Your task to perform on an android device: Do I have any events tomorrow? Image 0: 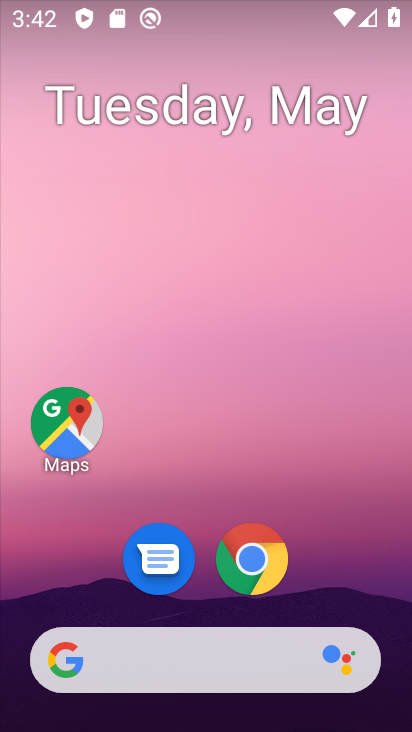
Step 0: drag from (345, 592) to (295, 71)
Your task to perform on an android device: Do I have any events tomorrow? Image 1: 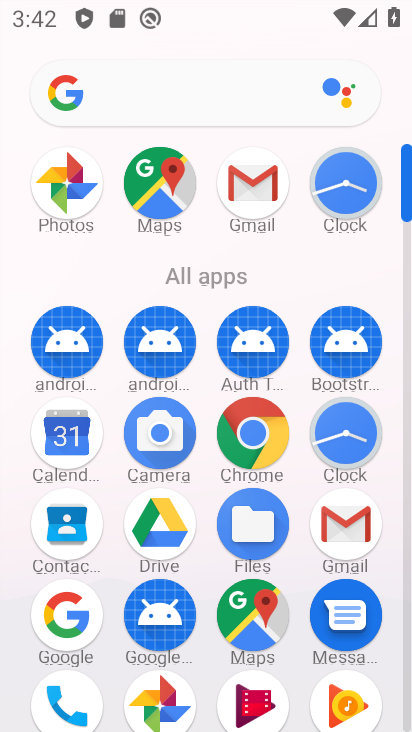
Step 1: click (58, 426)
Your task to perform on an android device: Do I have any events tomorrow? Image 2: 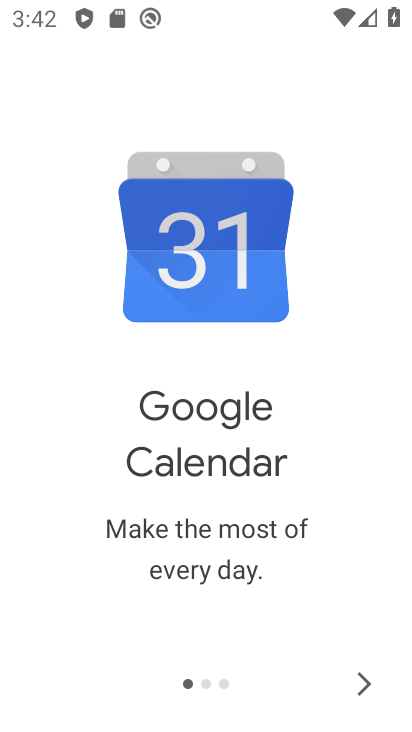
Step 2: click (370, 680)
Your task to perform on an android device: Do I have any events tomorrow? Image 3: 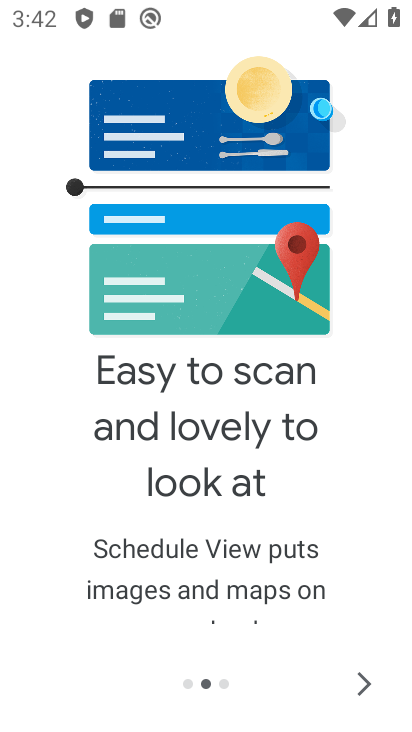
Step 3: click (370, 680)
Your task to perform on an android device: Do I have any events tomorrow? Image 4: 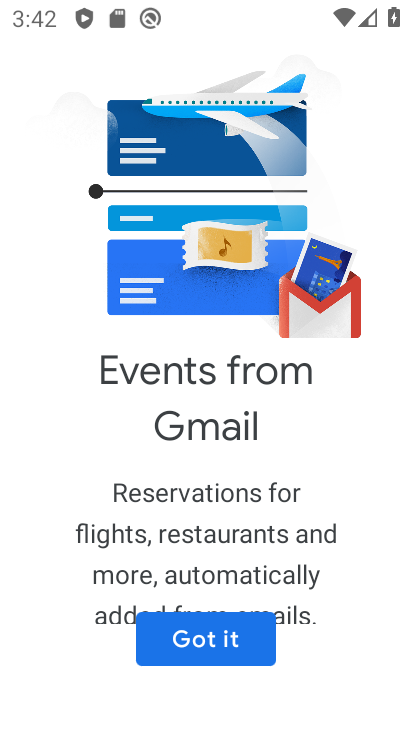
Step 4: click (248, 650)
Your task to perform on an android device: Do I have any events tomorrow? Image 5: 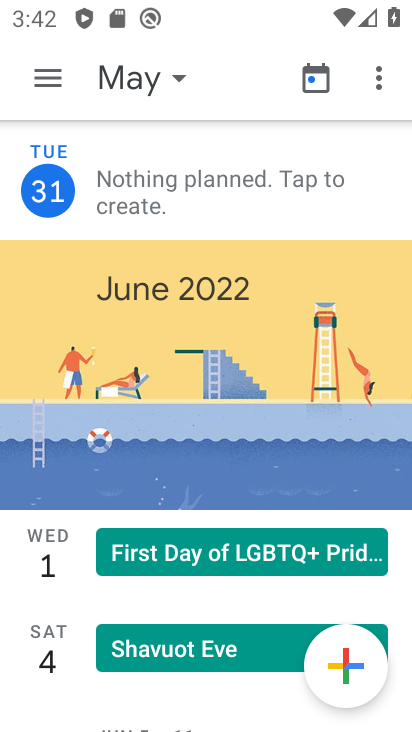
Step 5: click (56, 73)
Your task to perform on an android device: Do I have any events tomorrow? Image 6: 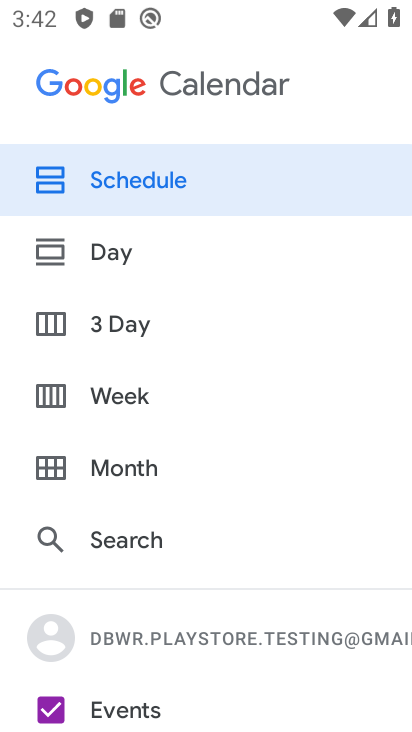
Step 6: drag from (162, 609) to (157, 260)
Your task to perform on an android device: Do I have any events tomorrow? Image 7: 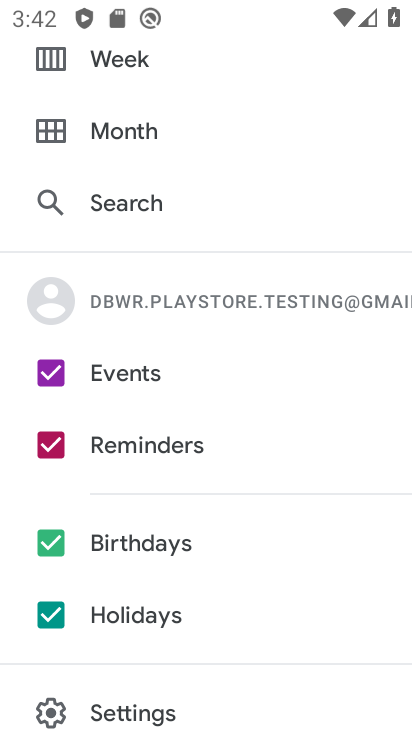
Step 7: click (53, 613)
Your task to perform on an android device: Do I have any events tomorrow? Image 8: 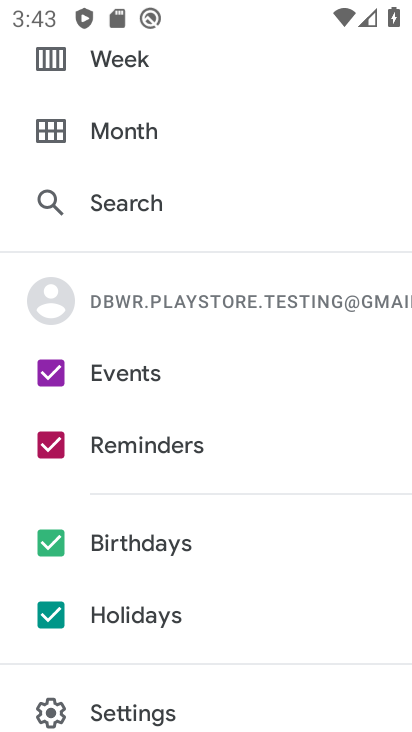
Step 8: click (44, 535)
Your task to perform on an android device: Do I have any events tomorrow? Image 9: 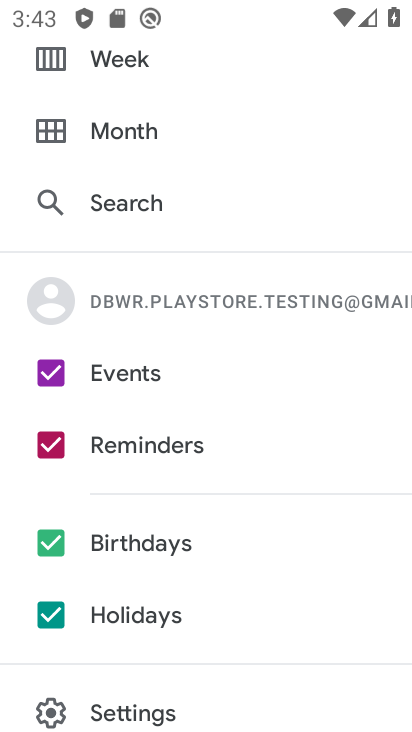
Step 9: click (50, 620)
Your task to perform on an android device: Do I have any events tomorrow? Image 10: 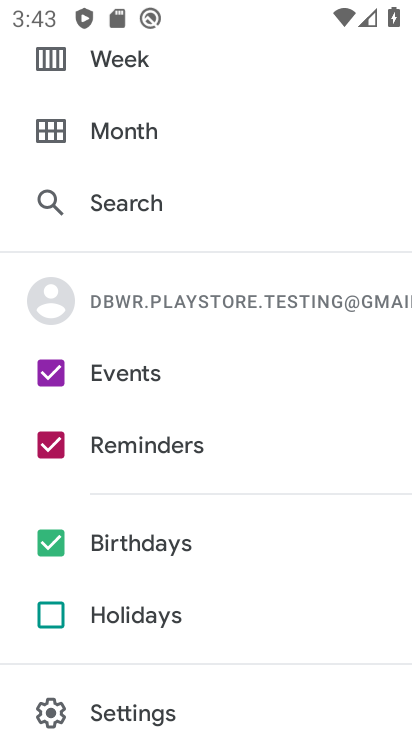
Step 10: click (53, 542)
Your task to perform on an android device: Do I have any events tomorrow? Image 11: 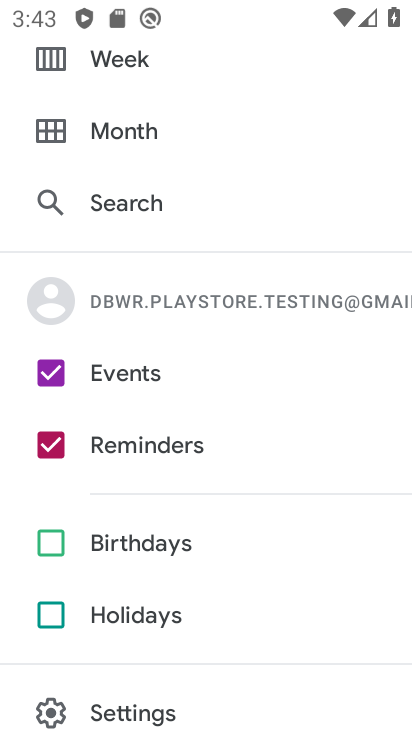
Step 11: click (51, 447)
Your task to perform on an android device: Do I have any events tomorrow? Image 12: 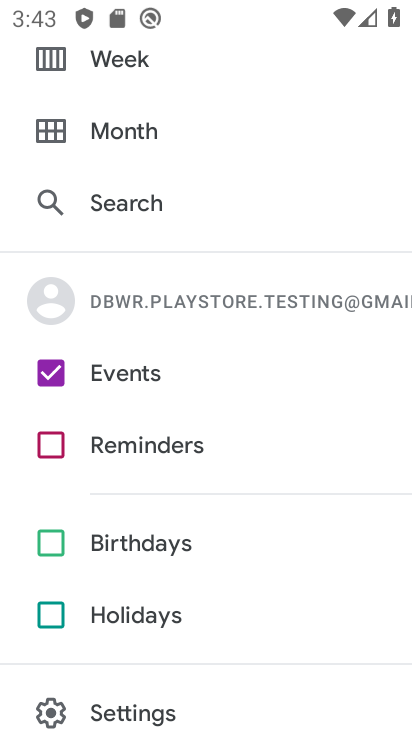
Step 12: drag from (132, 100) to (149, 497)
Your task to perform on an android device: Do I have any events tomorrow? Image 13: 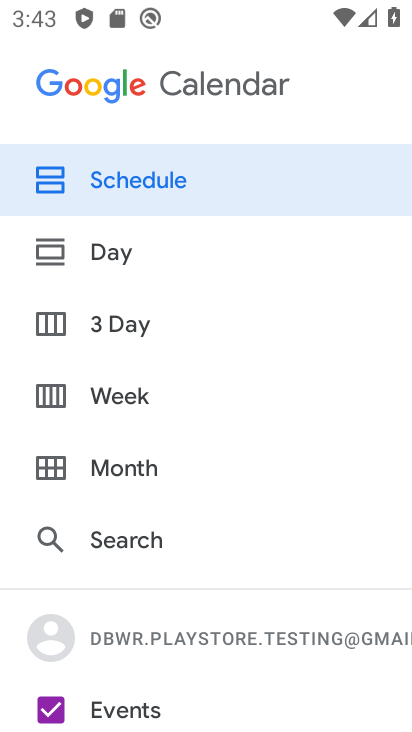
Step 13: click (133, 248)
Your task to perform on an android device: Do I have any events tomorrow? Image 14: 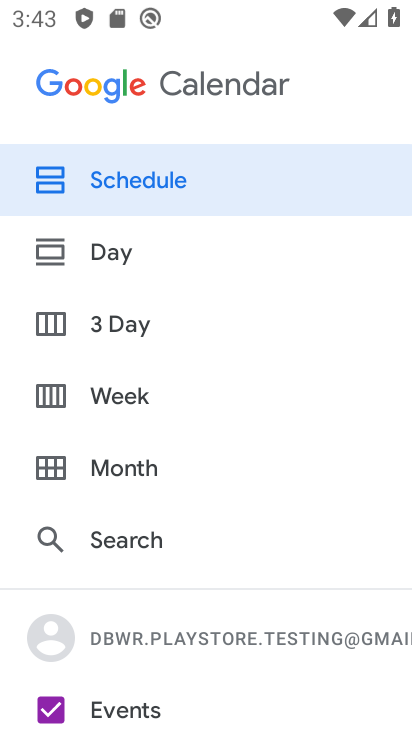
Step 14: click (180, 265)
Your task to perform on an android device: Do I have any events tomorrow? Image 15: 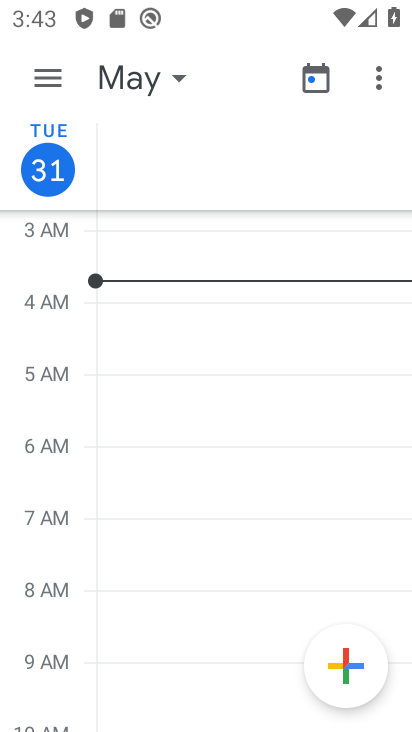
Step 15: click (174, 76)
Your task to perform on an android device: Do I have any events tomorrow? Image 16: 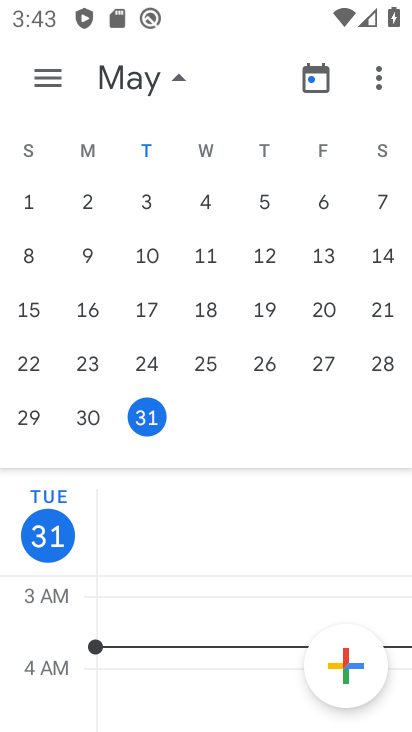
Step 16: drag from (390, 280) to (5, 247)
Your task to perform on an android device: Do I have any events tomorrow? Image 17: 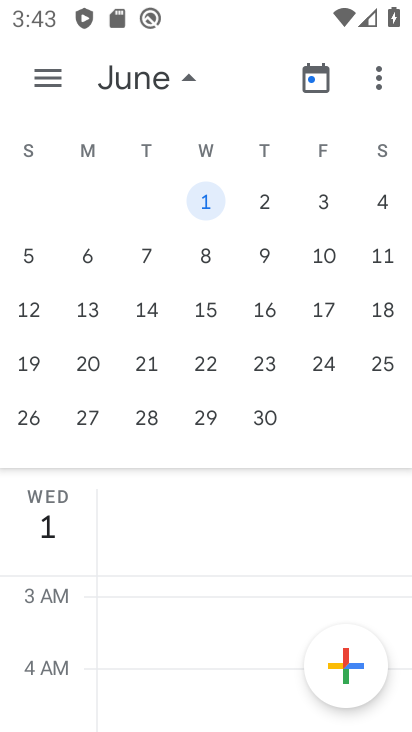
Step 17: click (213, 201)
Your task to perform on an android device: Do I have any events tomorrow? Image 18: 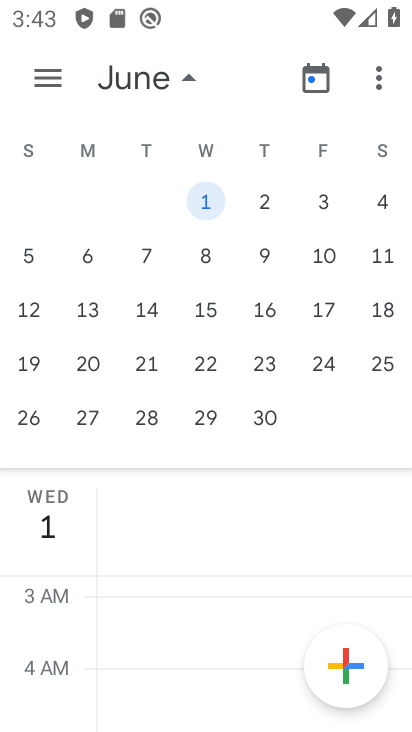
Step 18: click (172, 89)
Your task to perform on an android device: Do I have any events tomorrow? Image 19: 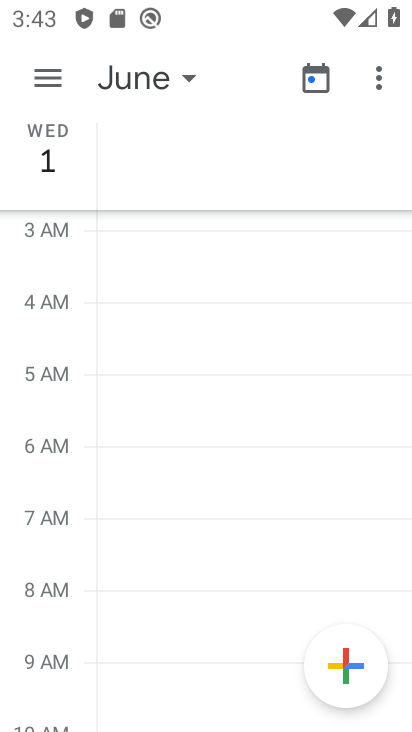
Step 19: task complete